Your task to perform on an android device: delete the emails in spam in the gmail app Image 0: 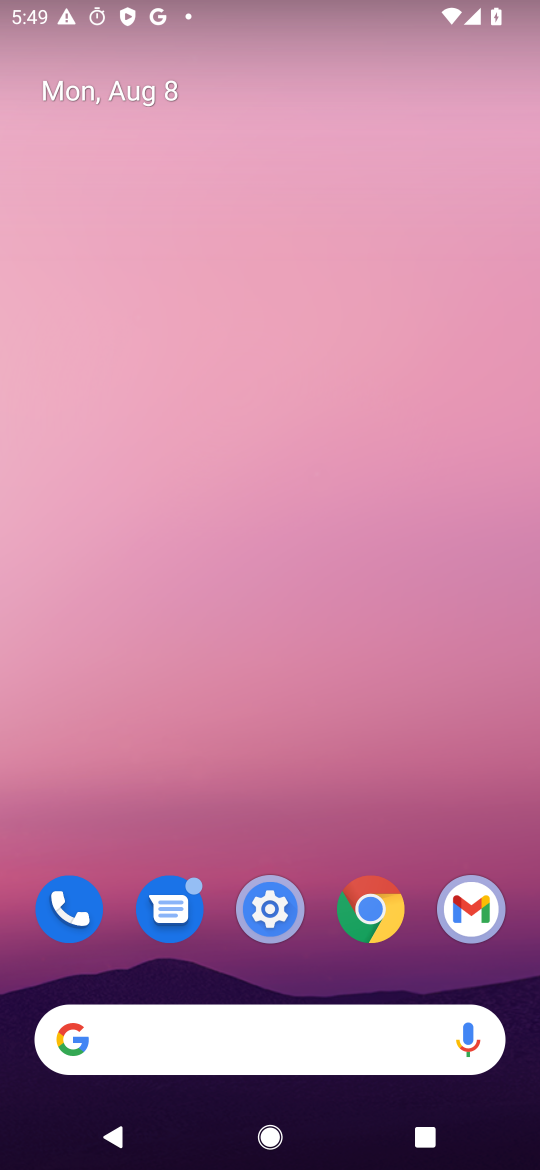
Step 0: drag from (281, 1036) to (414, 310)
Your task to perform on an android device: delete the emails in spam in the gmail app Image 1: 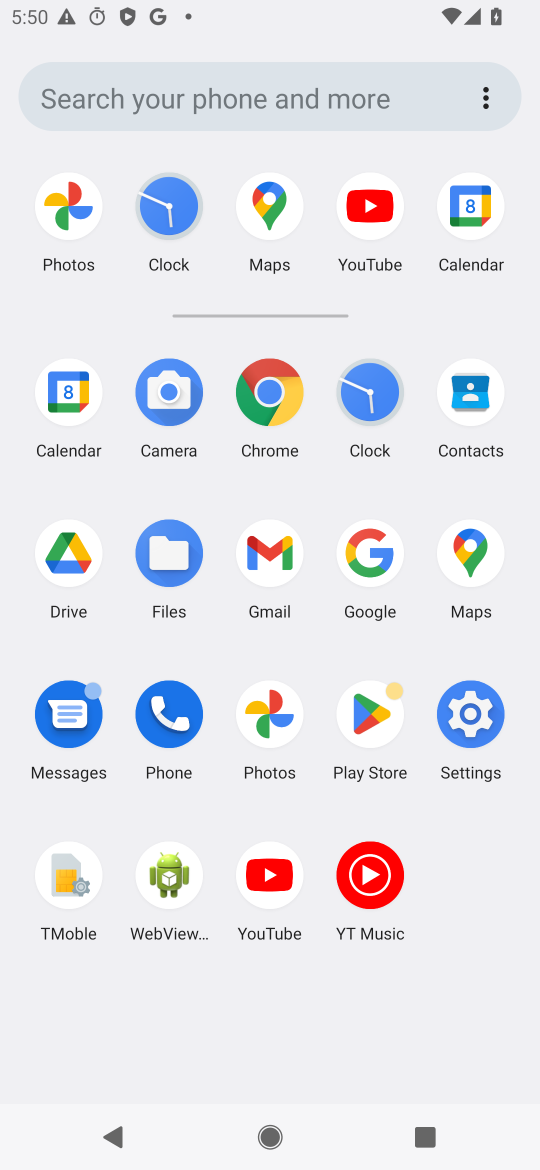
Step 1: click (69, 391)
Your task to perform on an android device: delete the emails in spam in the gmail app Image 2: 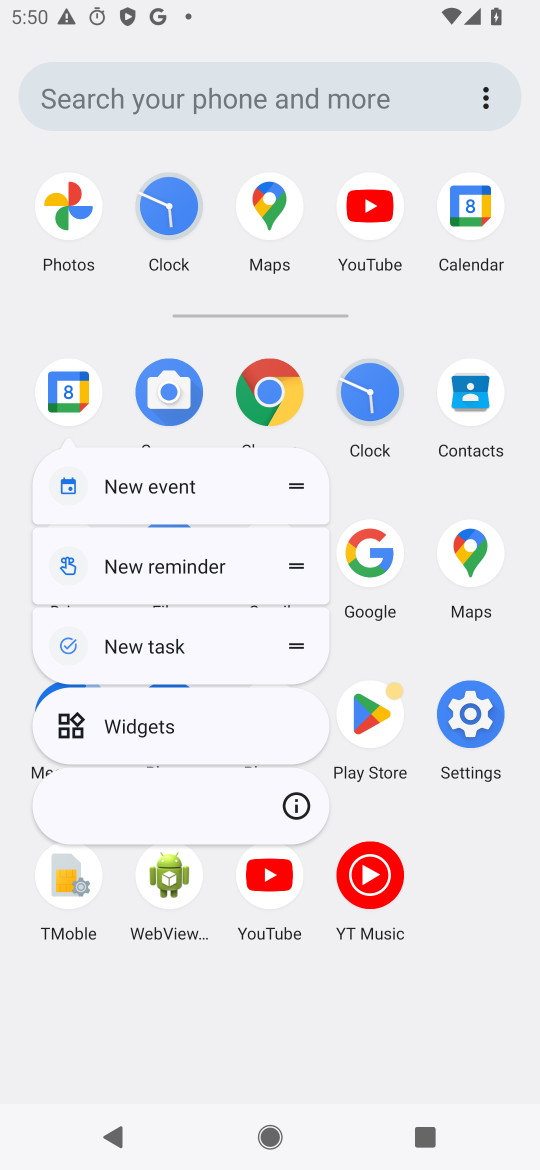
Step 2: drag from (467, 796) to (476, 133)
Your task to perform on an android device: delete the emails in spam in the gmail app Image 3: 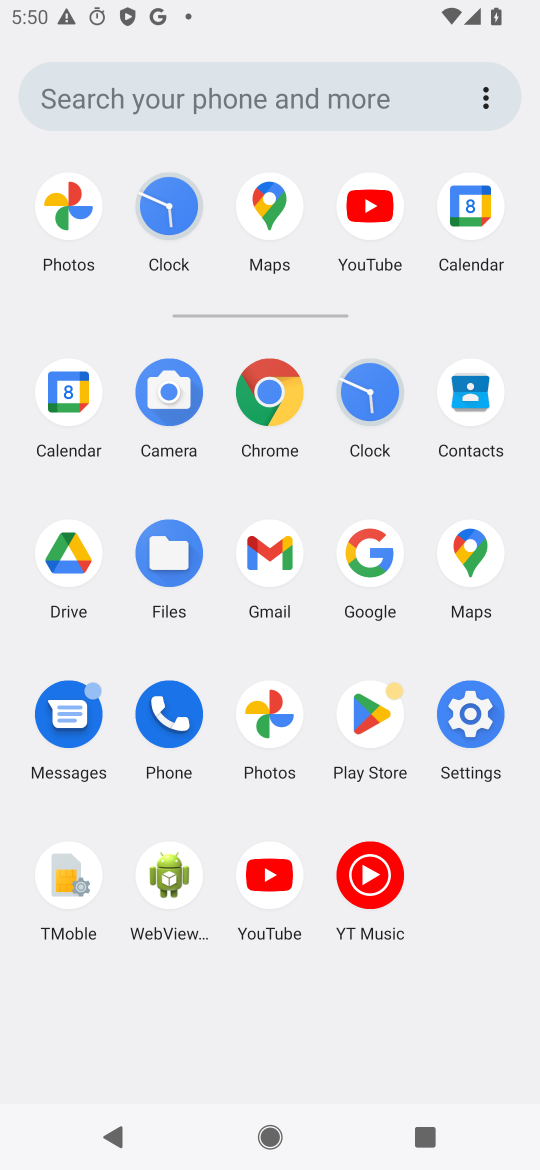
Step 3: click (264, 559)
Your task to perform on an android device: delete the emails in spam in the gmail app Image 4: 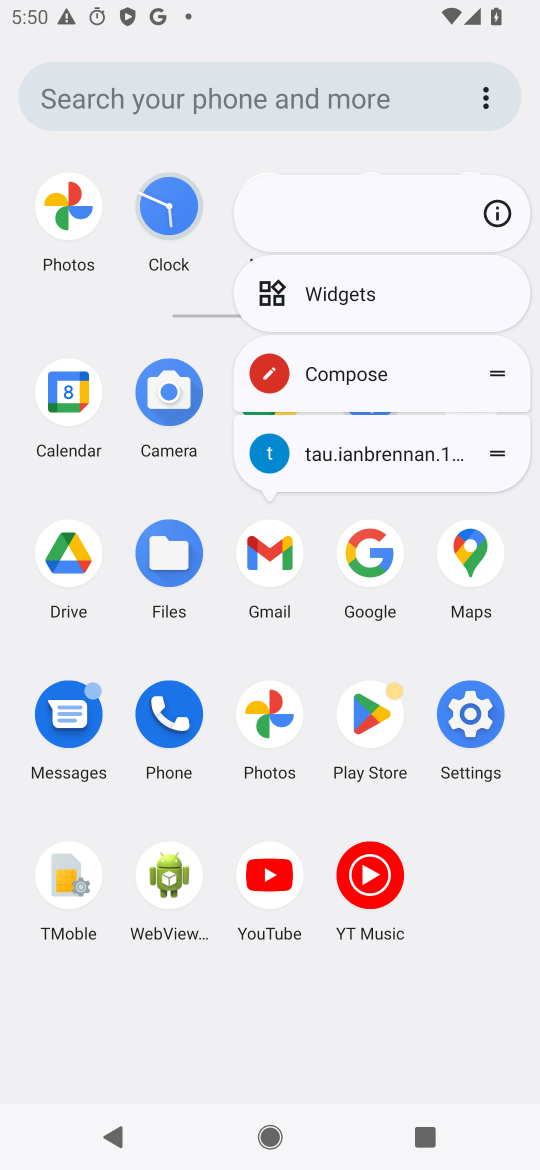
Step 4: click (264, 558)
Your task to perform on an android device: delete the emails in spam in the gmail app Image 5: 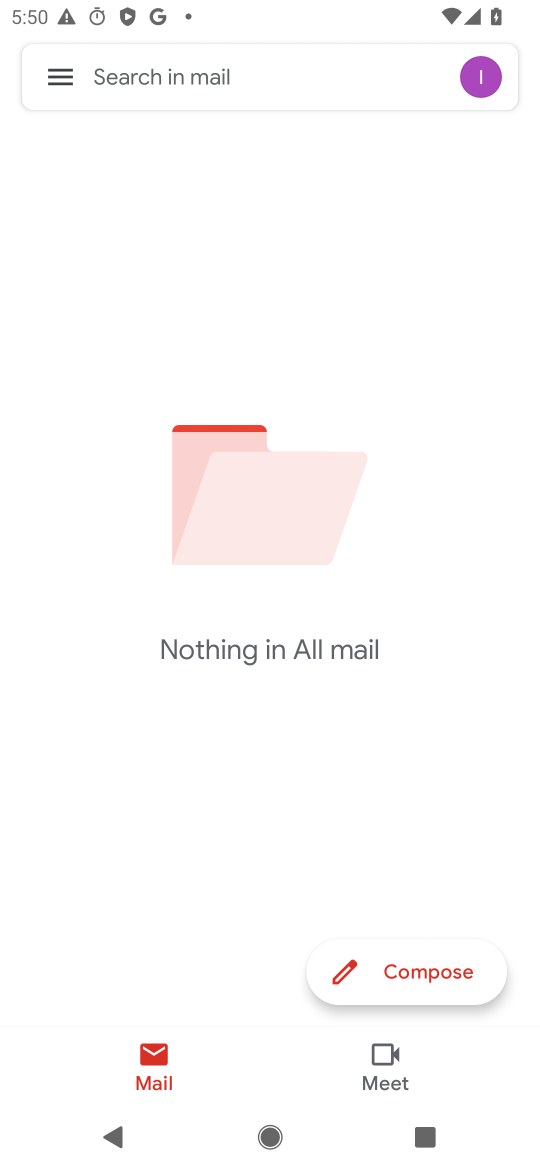
Step 5: click (69, 83)
Your task to perform on an android device: delete the emails in spam in the gmail app Image 6: 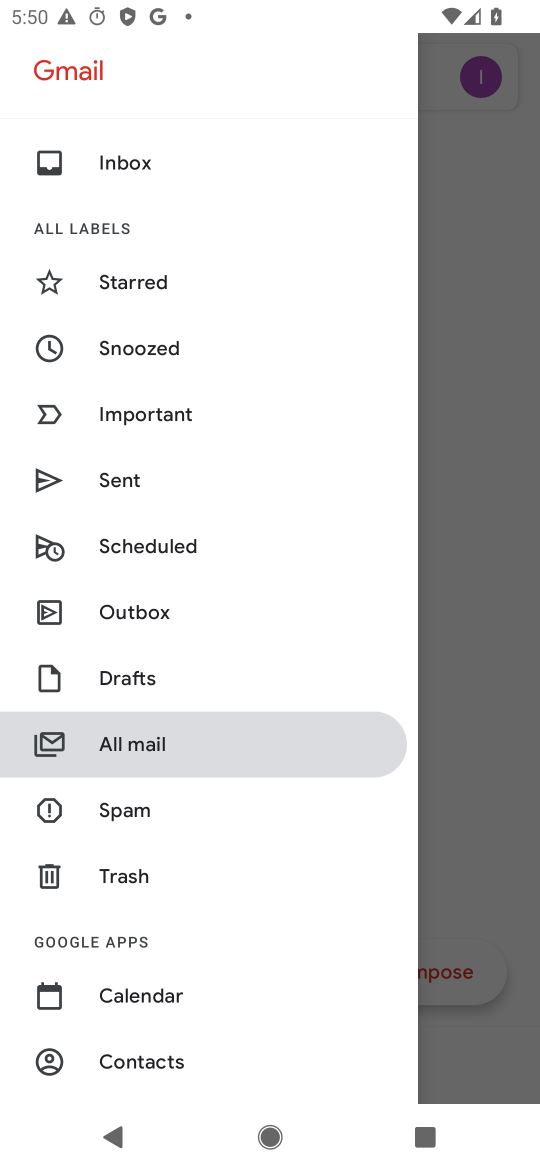
Step 6: click (128, 806)
Your task to perform on an android device: delete the emails in spam in the gmail app Image 7: 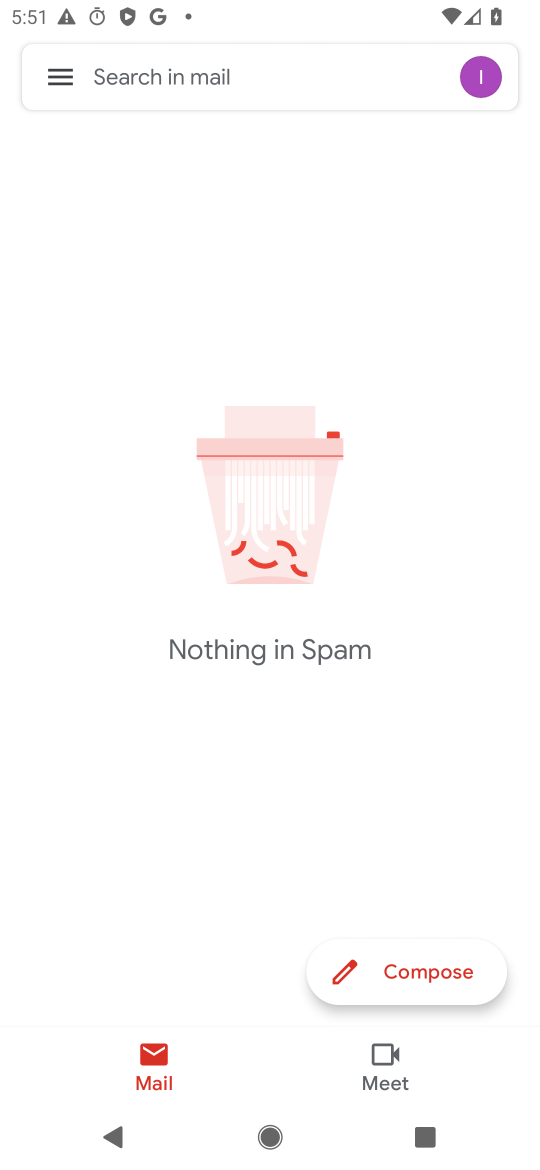
Step 7: task complete